Your task to perform on an android device: search for starred emails in the gmail app Image 0: 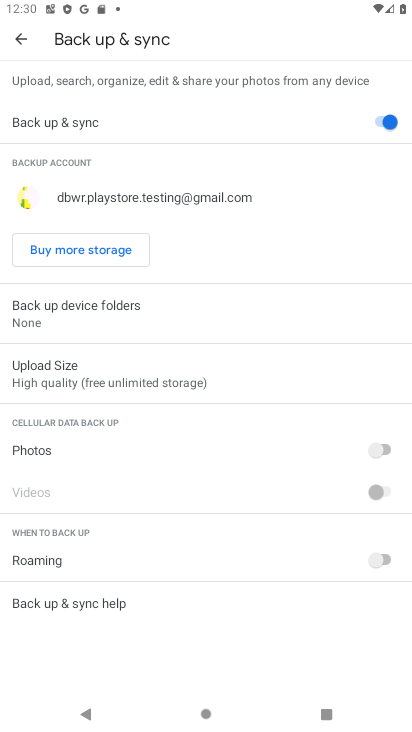
Step 0: press home button
Your task to perform on an android device: search for starred emails in the gmail app Image 1: 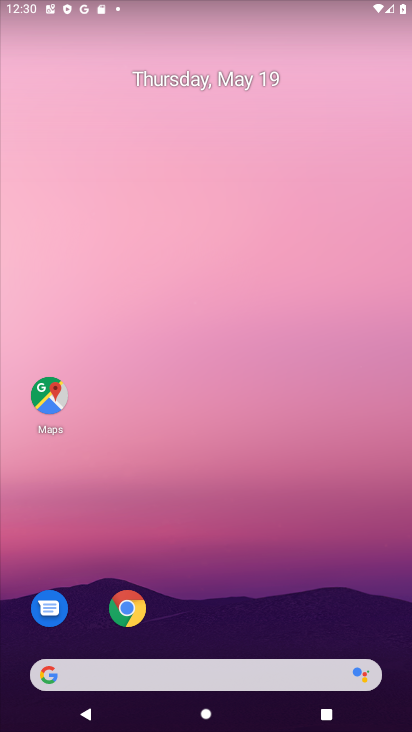
Step 1: drag from (275, 605) to (275, 181)
Your task to perform on an android device: search for starred emails in the gmail app Image 2: 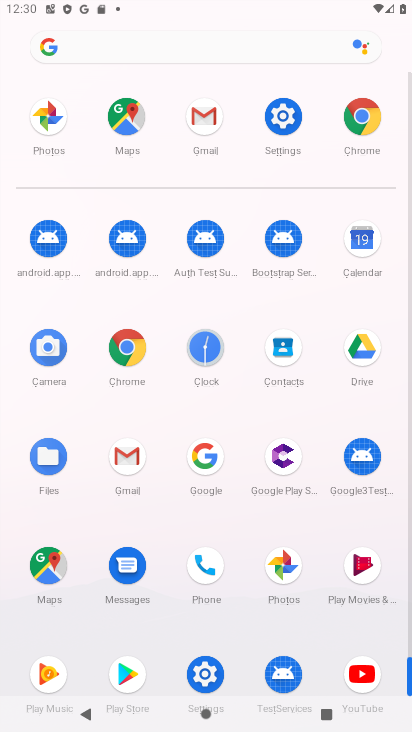
Step 2: click (127, 455)
Your task to perform on an android device: search for starred emails in the gmail app Image 3: 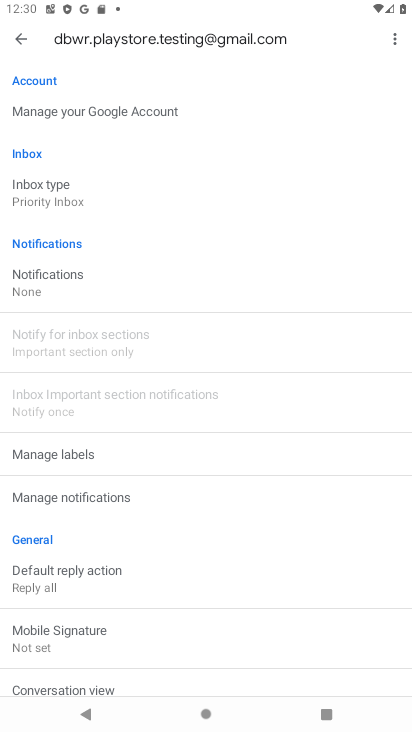
Step 3: click (18, 32)
Your task to perform on an android device: search for starred emails in the gmail app Image 4: 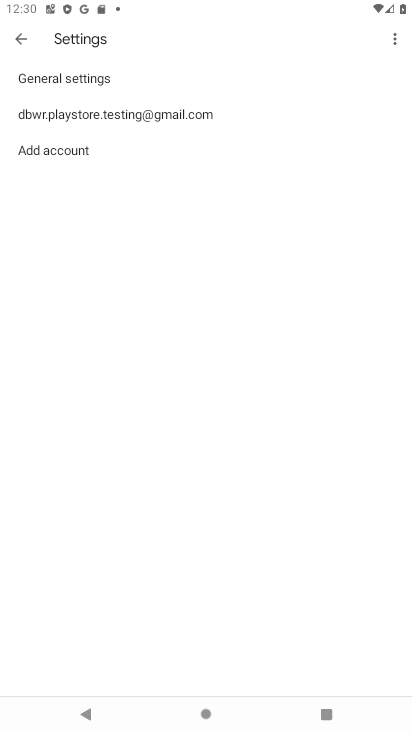
Step 4: click (20, 35)
Your task to perform on an android device: search for starred emails in the gmail app Image 5: 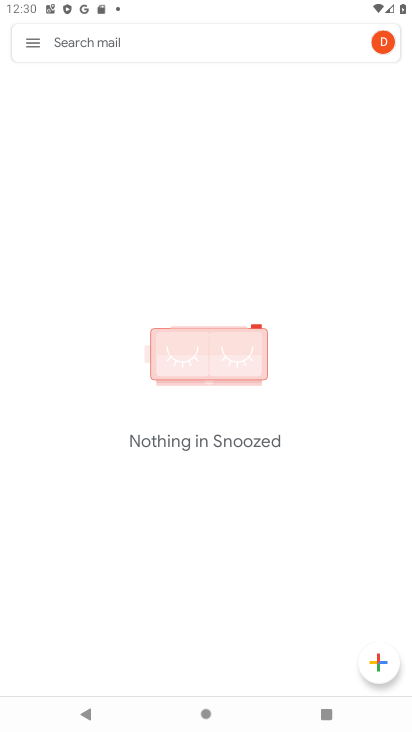
Step 5: click (20, 37)
Your task to perform on an android device: search for starred emails in the gmail app Image 6: 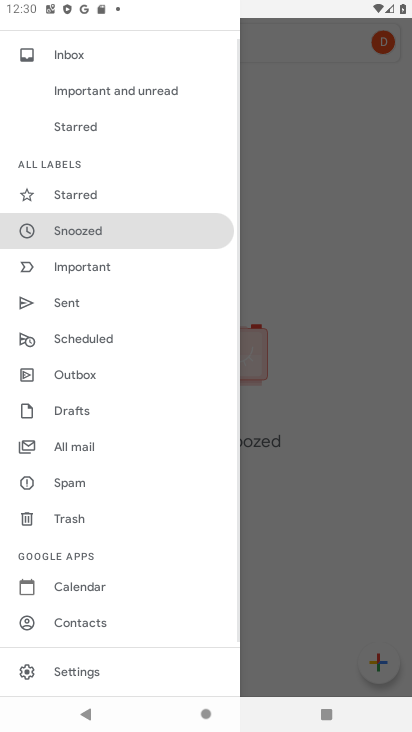
Step 6: click (80, 444)
Your task to perform on an android device: search for starred emails in the gmail app Image 7: 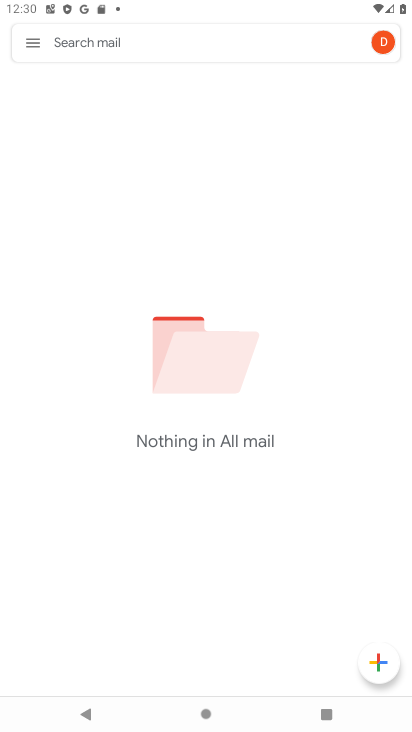
Step 7: click (29, 35)
Your task to perform on an android device: search for starred emails in the gmail app Image 8: 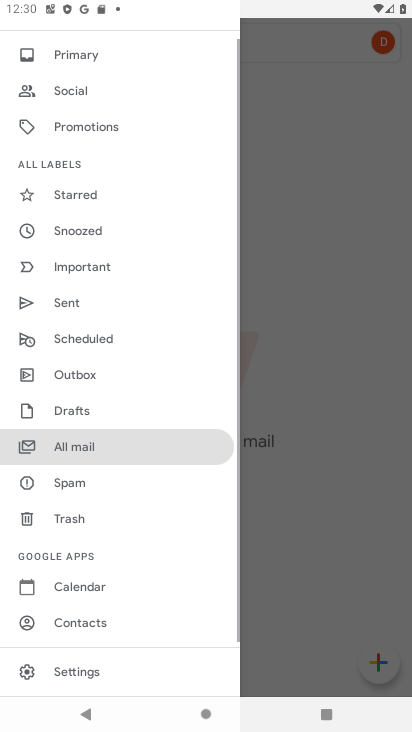
Step 8: click (76, 201)
Your task to perform on an android device: search for starred emails in the gmail app Image 9: 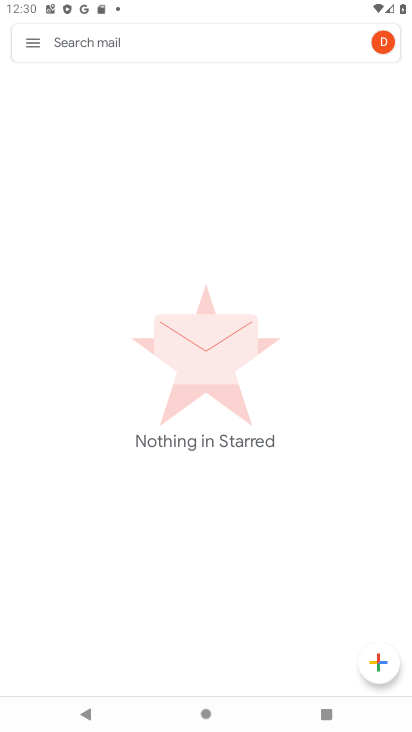
Step 9: task complete